Your task to perform on an android device: check out phone information Image 0: 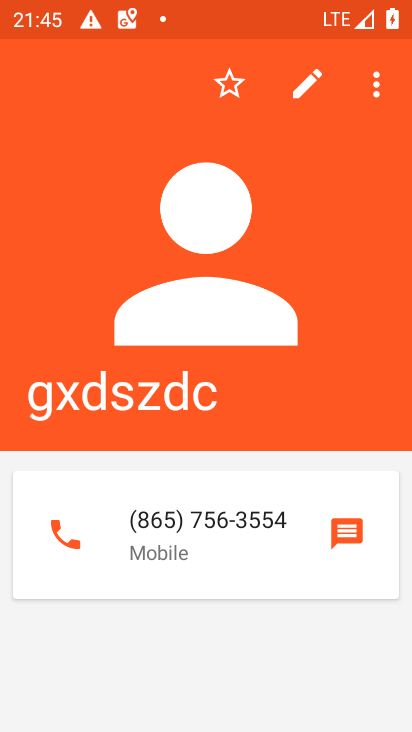
Step 0: press back button
Your task to perform on an android device: check out phone information Image 1: 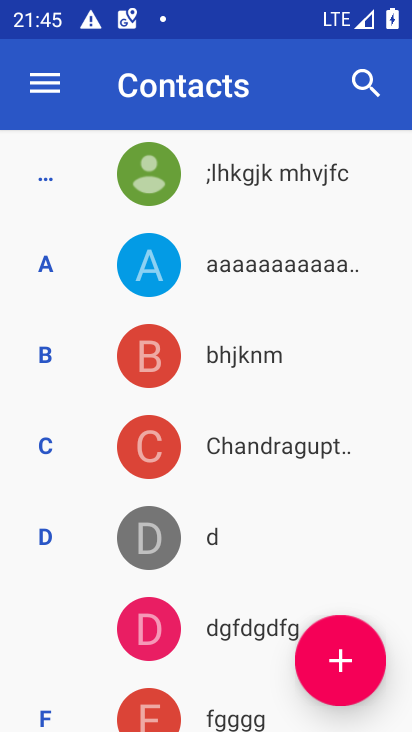
Step 1: press home button
Your task to perform on an android device: check out phone information Image 2: 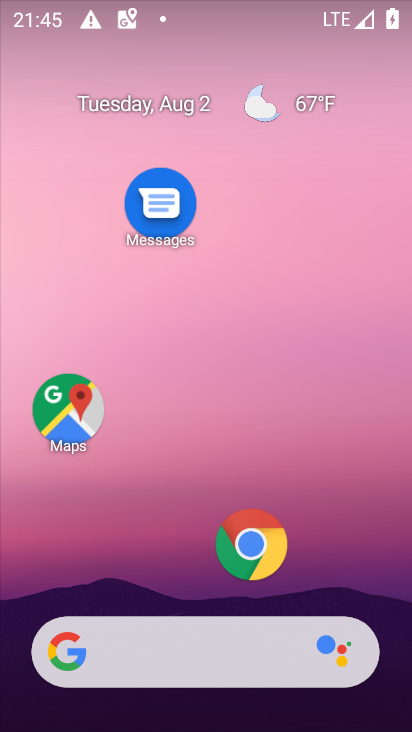
Step 2: drag from (205, 592) to (188, 138)
Your task to perform on an android device: check out phone information Image 3: 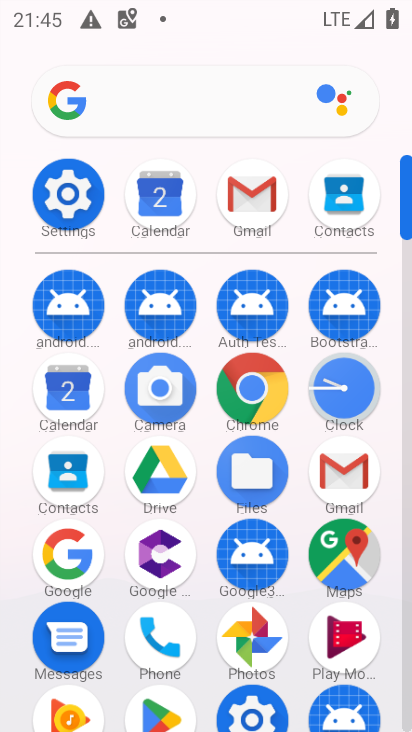
Step 3: click (40, 194)
Your task to perform on an android device: check out phone information Image 4: 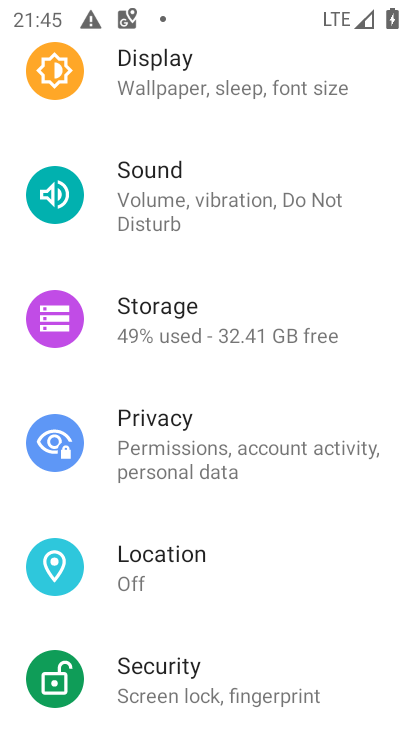
Step 4: drag from (206, 662) to (206, 167)
Your task to perform on an android device: check out phone information Image 5: 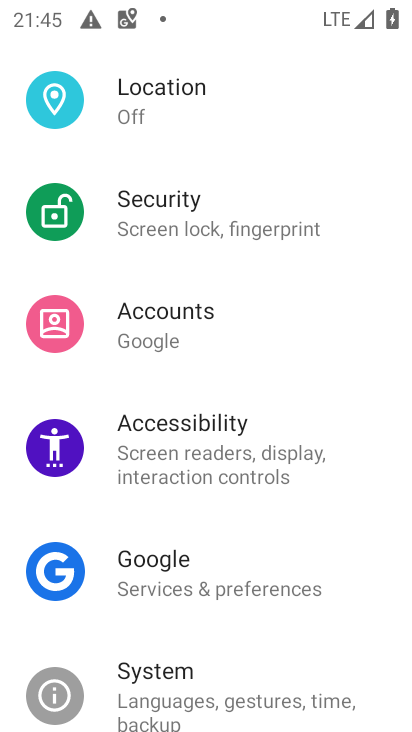
Step 5: drag from (205, 570) to (188, 164)
Your task to perform on an android device: check out phone information Image 6: 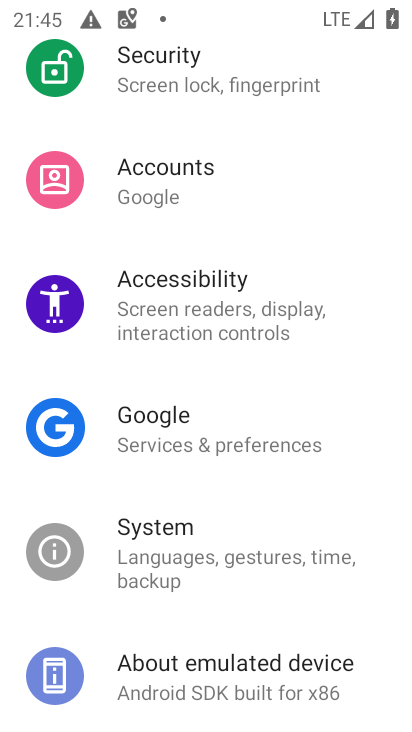
Step 6: click (208, 668)
Your task to perform on an android device: check out phone information Image 7: 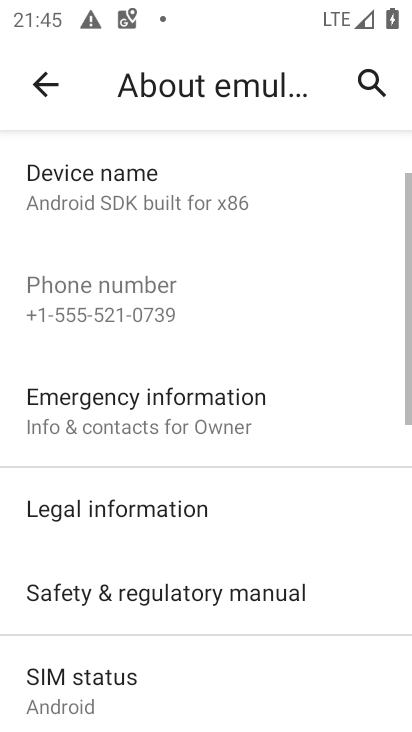
Step 7: task complete